Your task to perform on an android device: Show the shopping cart on ebay. Add "jbl charge 4" to the cart on ebay Image 0: 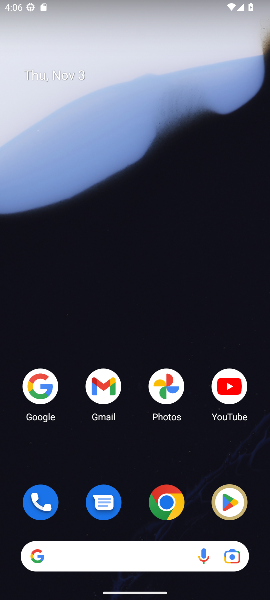
Step 0: press home button
Your task to perform on an android device: Show the shopping cart on ebay. Add "jbl charge 4" to the cart on ebay Image 1: 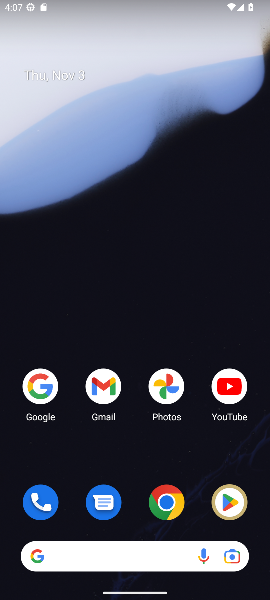
Step 1: click (168, 500)
Your task to perform on an android device: Show the shopping cart on ebay. Add "jbl charge 4" to the cart on ebay Image 2: 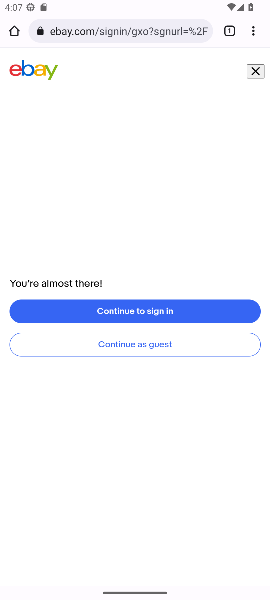
Step 2: click (253, 65)
Your task to perform on an android device: Show the shopping cart on ebay. Add "jbl charge 4" to the cart on ebay Image 3: 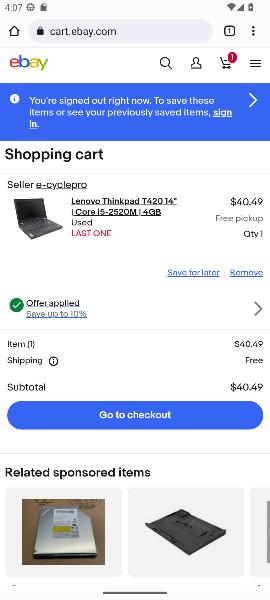
Step 3: click (165, 63)
Your task to perform on an android device: Show the shopping cart on ebay. Add "jbl charge 4" to the cart on ebay Image 4: 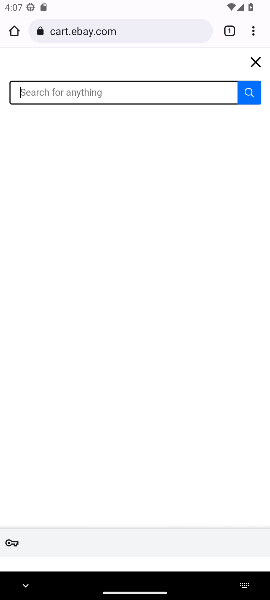
Step 4: type "jbl charger 4"
Your task to perform on an android device: Show the shopping cart on ebay. Add "jbl charge 4" to the cart on ebay Image 5: 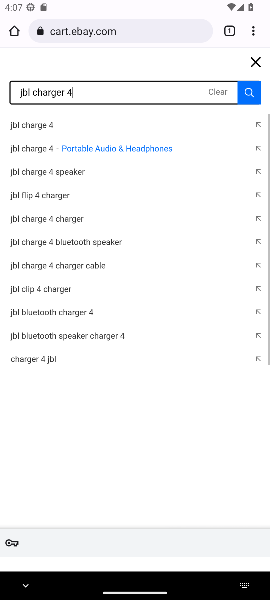
Step 5: click (31, 126)
Your task to perform on an android device: Show the shopping cart on ebay. Add "jbl charge 4" to the cart on ebay Image 6: 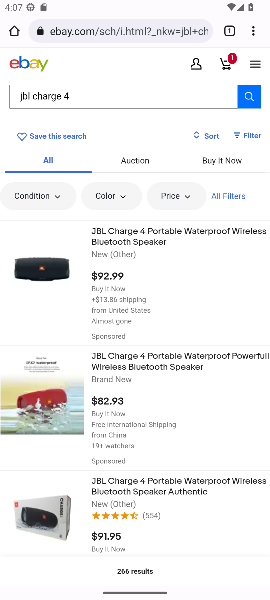
Step 6: click (136, 238)
Your task to perform on an android device: Show the shopping cart on ebay. Add "jbl charge 4" to the cart on ebay Image 7: 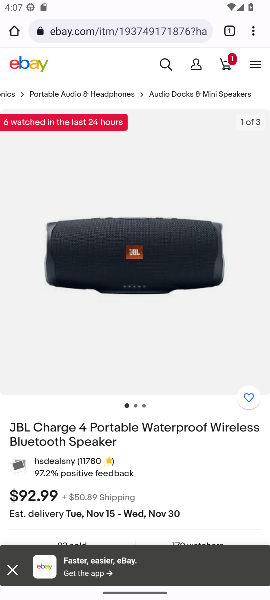
Step 7: drag from (189, 459) to (171, 315)
Your task to perform on an android device: Show the shopping cart on ebay. Add "jbl charge 4" to the cart on ebay Image 8: 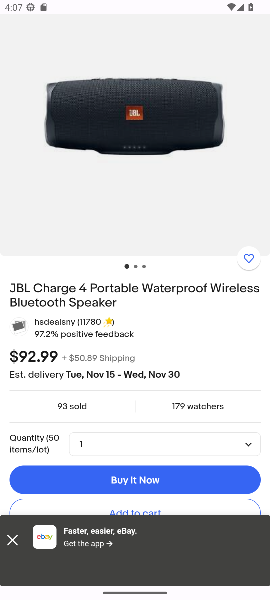
Step 8: drag from (195, 345) to (189, 204)
Your task to perform on an android device: Show the shopping cart on ebay. Add "jbl charge 4" to the cart on ebay Image 9: 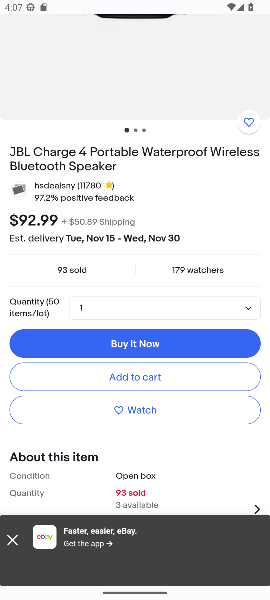
Step 9: click (131, 377)
Your task to perform on an android device: Show the shopping cart on ebay. Add "jbl charge 4" to the cart on ebay Image 10: 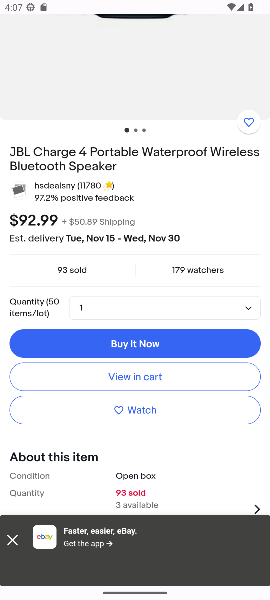
Step 10: task complete